Your task to perform on an android device: refresh tabs in the chrome app Image 0: 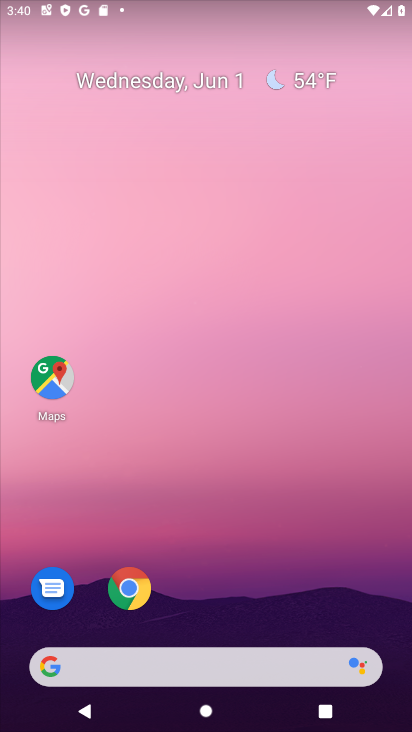
Step 0: drag from (230, 624) to (323, 116)
Your task to perform on an android device: refresh tabs in the chrome app Image 1: 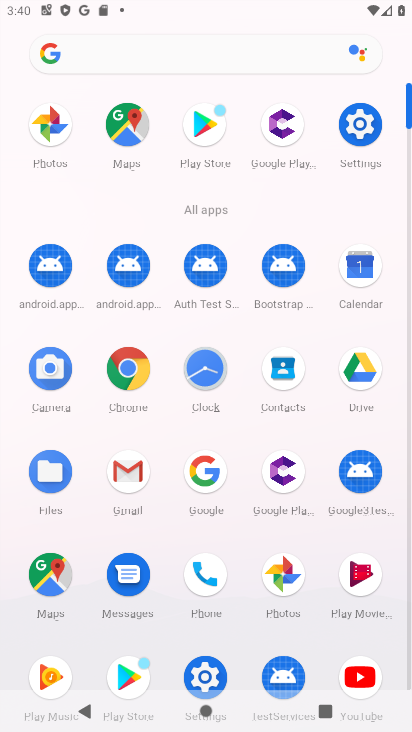
Step 1: click (128, 381)
Your task to perform on an android device: refresh tabs in the chrome app Image 2: 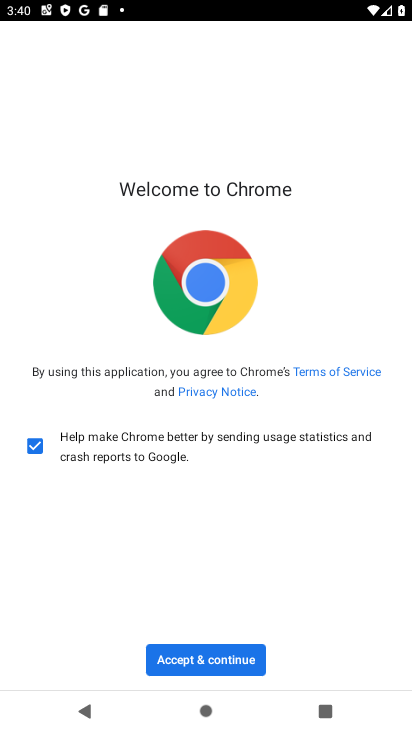
Step 2: click (199, 642)
Your task to perform on an android device: refresh tabs in the chrome app Image 3: 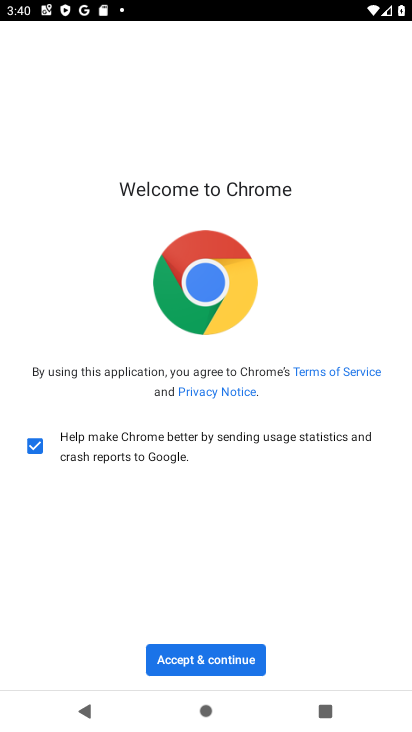
Step 3: click (270, 657)
Your task to perform on an android device: refresh tabs in the chrome app Image 4: 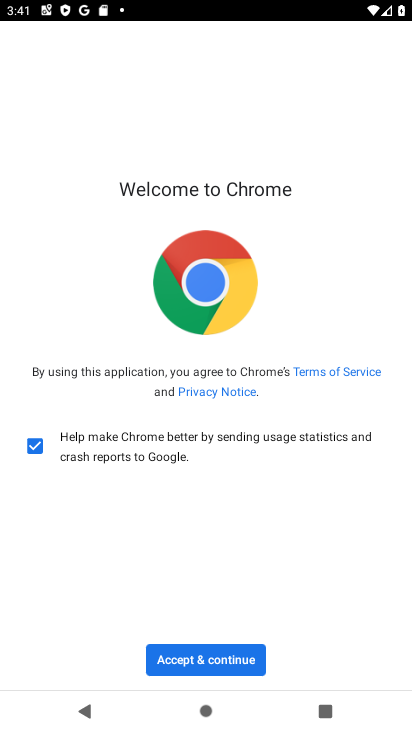
Step 4: click (244, 660)
Your task to perform on an android device: refresh tabs in the chrome app Image 5: 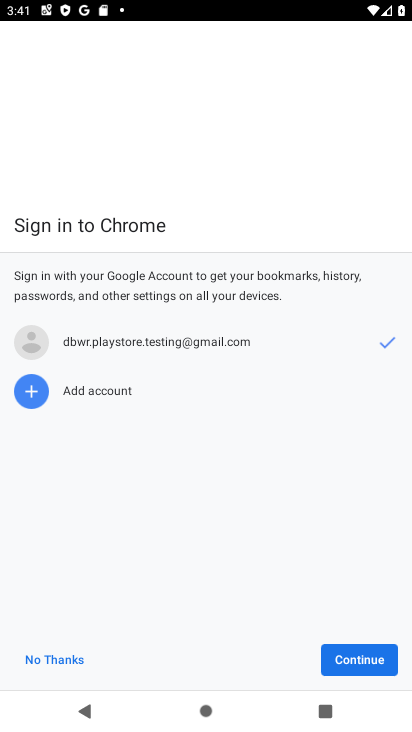
Step 5: click (327, 662)
Your task to perform on an android device: refresh tabs in the chrome app Image 6: 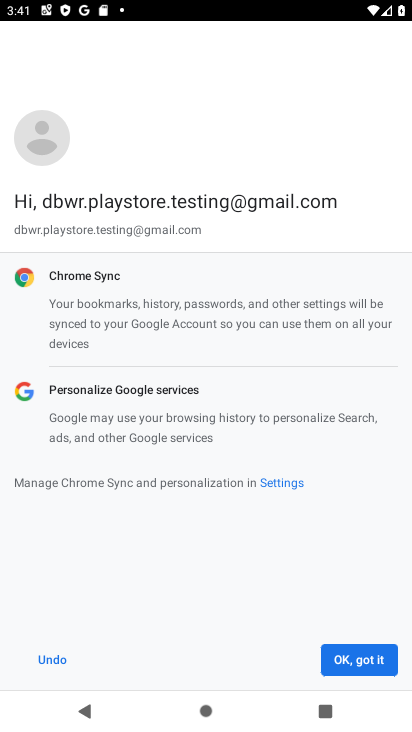
Step 6: click (368, 661)
Your task to perform on an android device: refresh tabs in the chrome app Image 7: 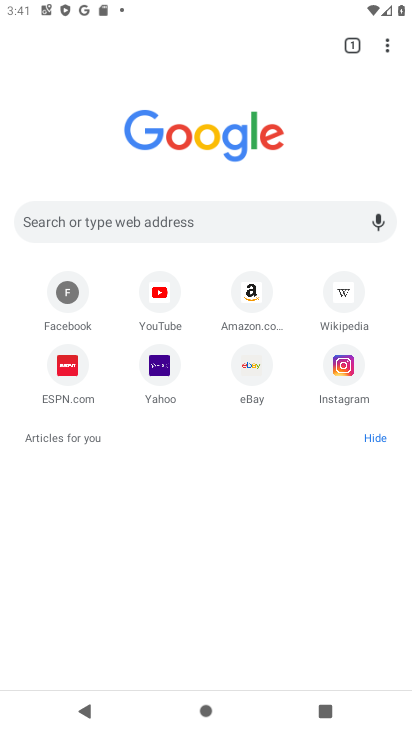
Step 7: click (398, 43)
Your task to perform on an android device: refresh tabs in the chrome app Image 8: 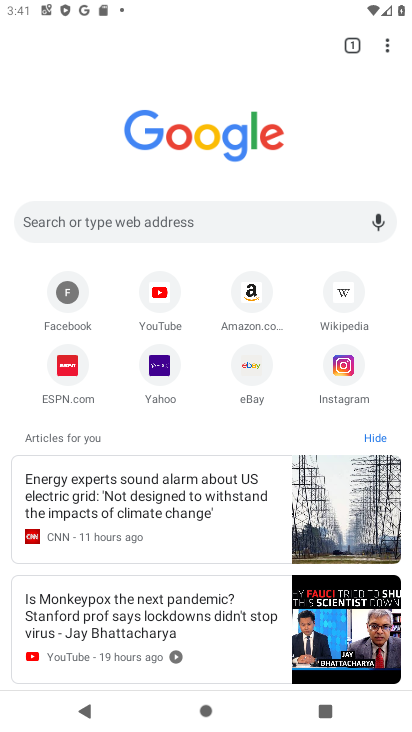
Step 8: task complete